Your task to perform on an android device: Go to Yahoo.com Image 0: 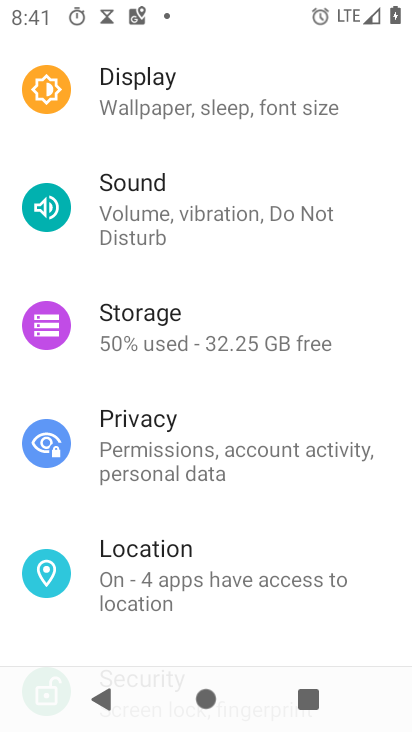
Step 0: press home button
Your task to perform on an android device: Go to Yahoo.com Image 1: 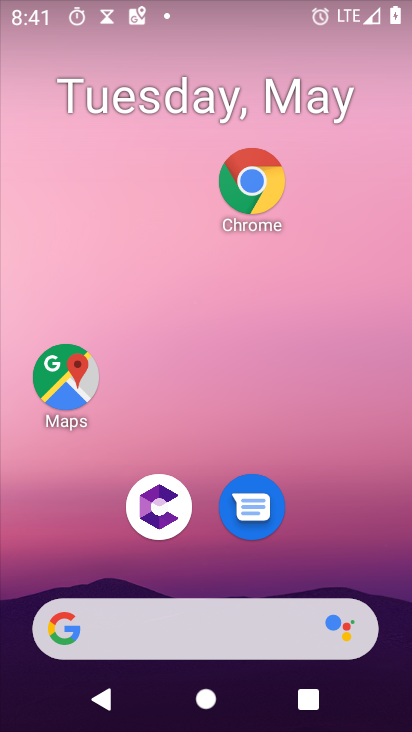
Step 1: click (249, 176)
Your task to perform on an android device: Go to Yahoo.com Image 2: 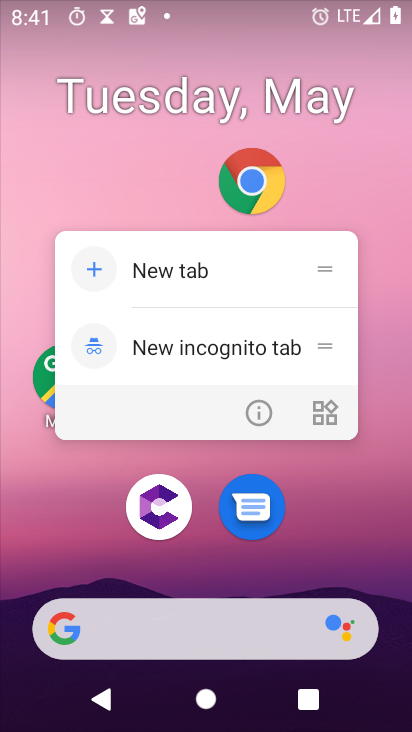
Step 2: click (249, 178)
Your task to perform on an android device: Go to Yahoo.com Image 3: 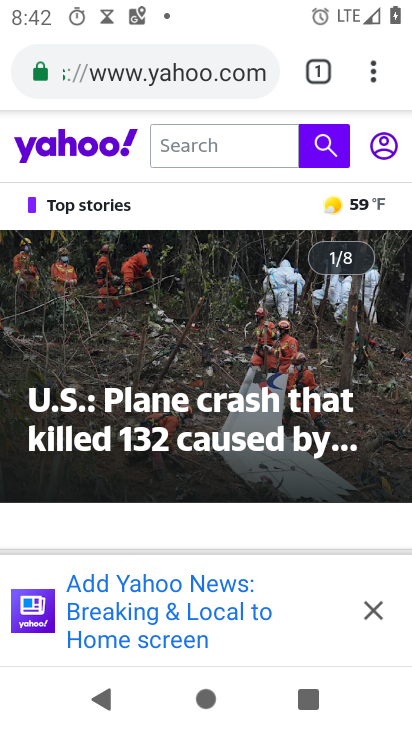
Step 3: task complete